Your task to perform on an android device: Go to internet settings Image 0: 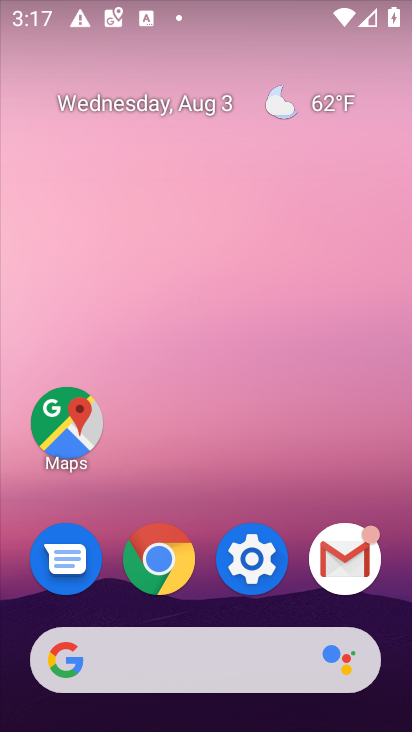
Step 0: press home button
Your task to perform on an android device: Go to internet settings Image 1: 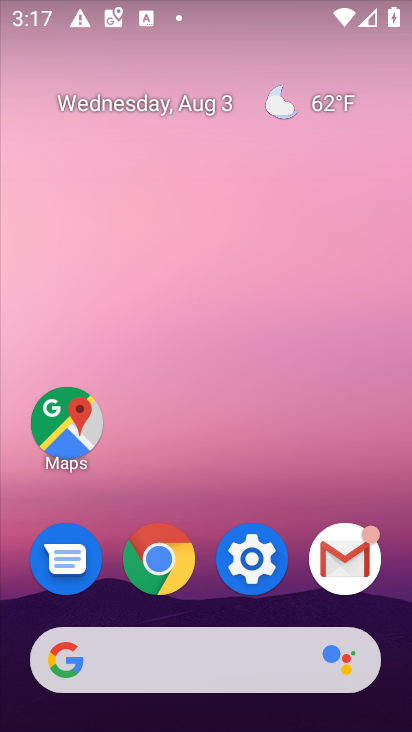
Step 1: click (241, 565)
Your task to perform on an android device: Go to internet settings Image 2: 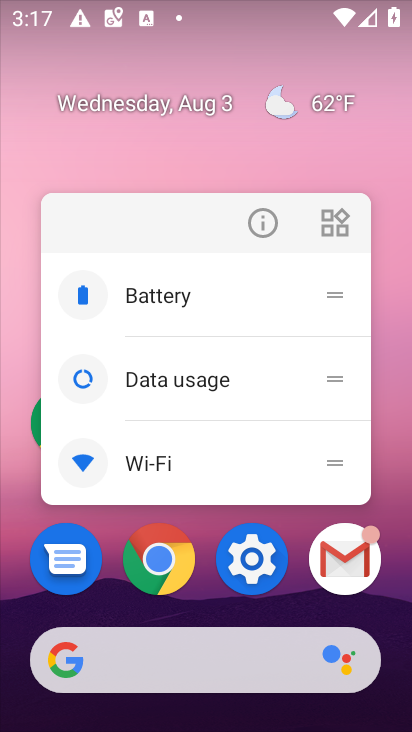
Step 2: click (257, 559)
Your task to perform on an android device: Go to internet settings Image 3: 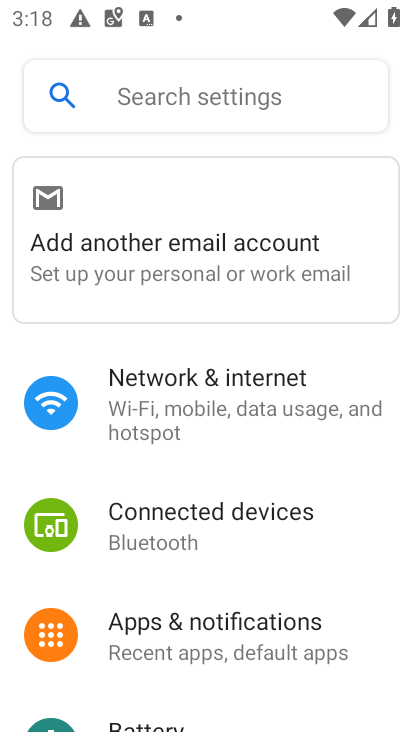
Step 3: click (184, 412)
Your task to perform on an android device: Go to internet settings Image 4: 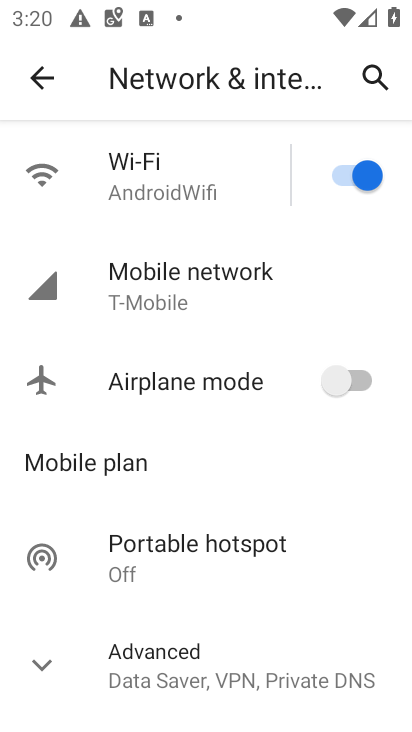
Step 4: task complete